Your task to perform on an android device: remove spam from my inbox in the gmail app Image 0: 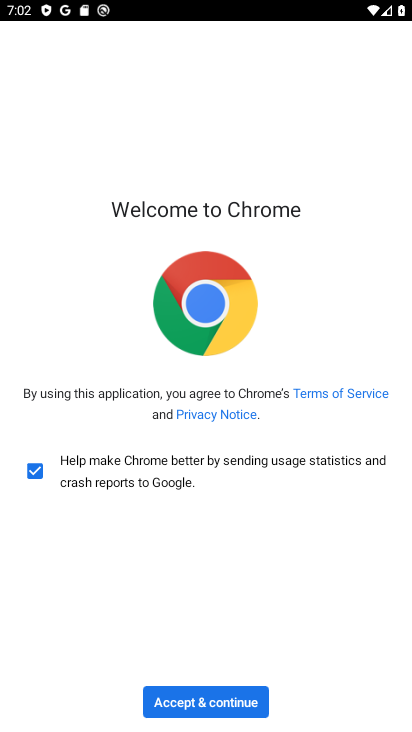
Step 0: press home button
Your task to perform on an android device: remove spam from my inbox in the gmail app Image 1: 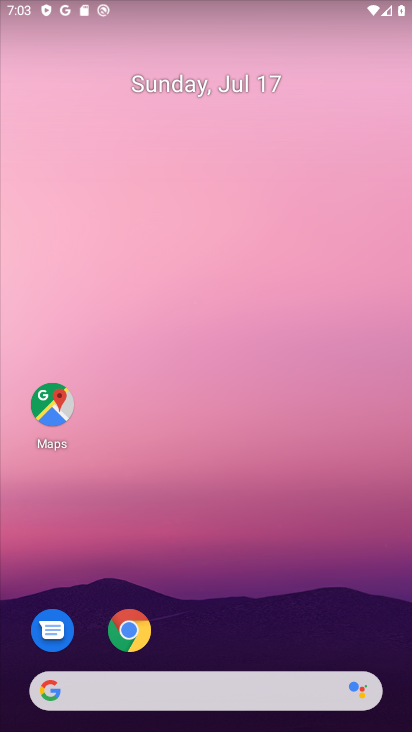
Step 1: drag from (222, 247) to (262, 26)
Your task to perform on an android device: remove spam from my inbox in the gmail app Image 2: 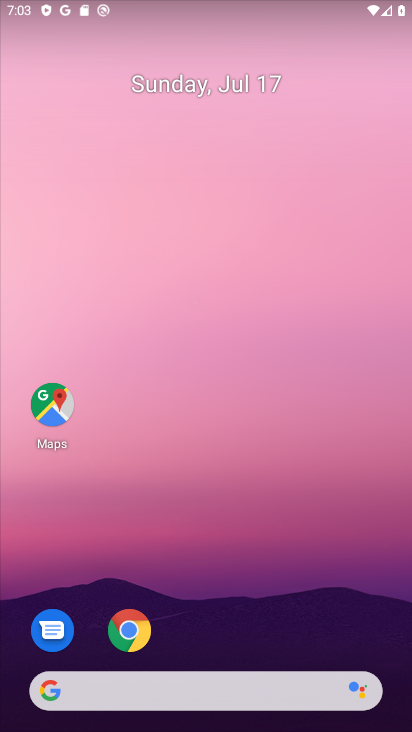
Step 2: drag from (201, 620) to (265, 44)
Your task to perform on an android device: remove spam from my inbox in the gmail app Image 3: 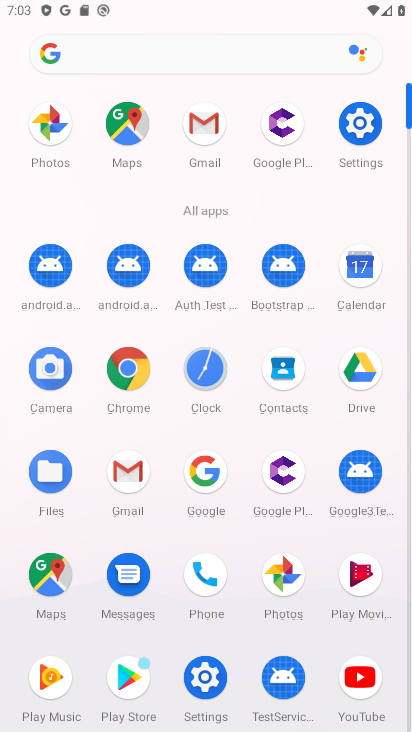
Step 3: click (202, 154)
Your task to perform on an android device: remove spam from my inbox in the gmail app Image 4: 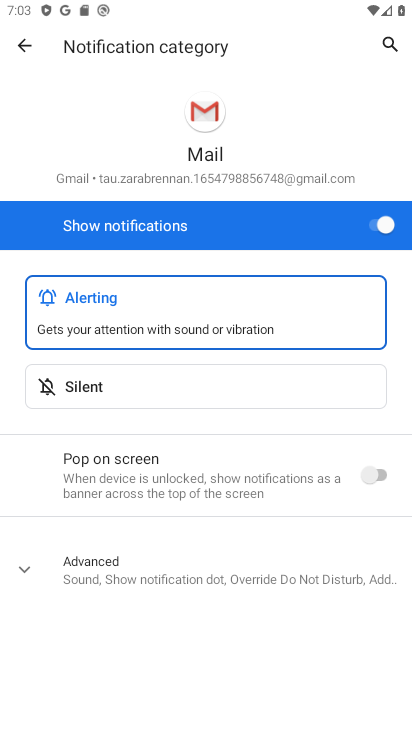
Step 4: click (22, 43)
Your task to perform on an android device: remove spam from my inbox in the gmail app Image 5: 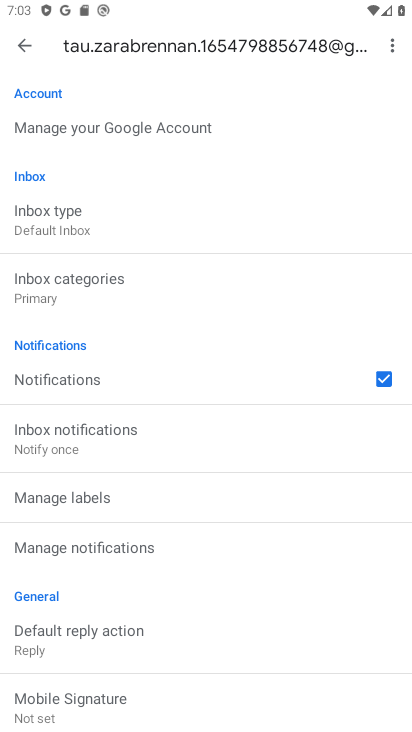
Step 5: click (22, 43)
Your task to perform on an android device: remove spam from my inbox in the gmail app Image 6: 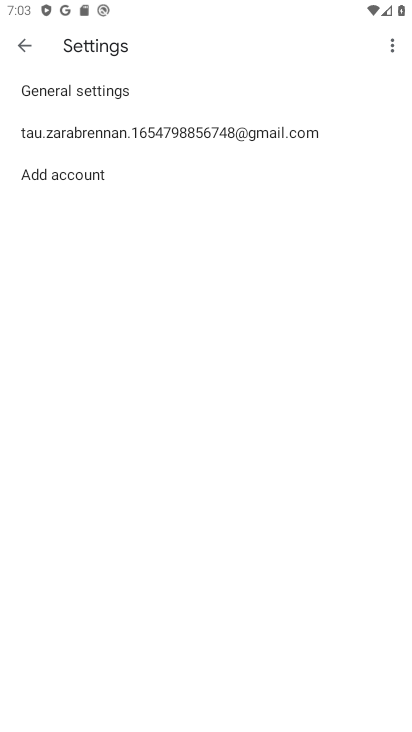
Step 6: click (22, 43)
Your task to perform on an android device: remove spam from my inbox in the gmail app Image 7: 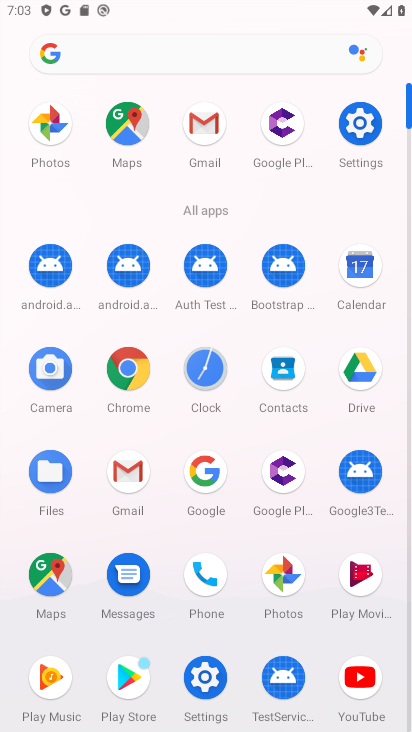
Step 7: click (212, 127)
Your task to perform on an android device: remove spam from my inbox in the gmail app Image 8: 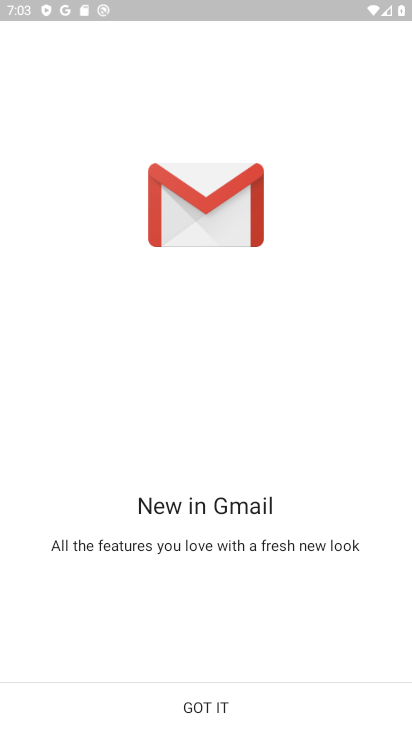
Step 8: click (211, 705)
Your task to perform on an android device: remove spam from my inbox in the gmail app Image 9: 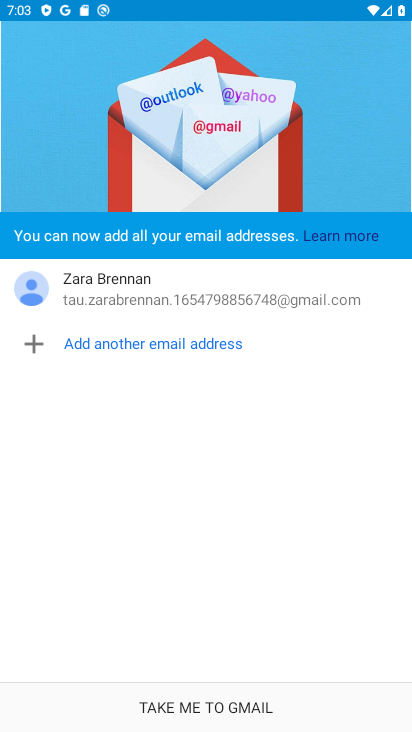
Step 9: click (211, 705)
Your task to perform on an android device: remove spam from my inbox in the gmail app Image 10: 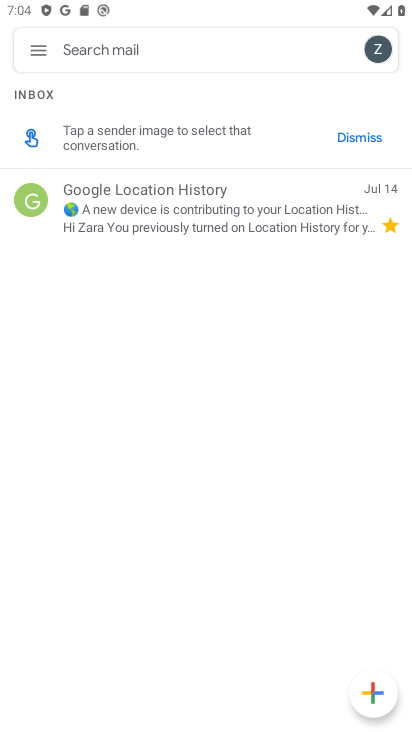
Step 10: click (36, 53)
Your task to perform on an android device: remove spam from my inbox in the gmail app Image 11: 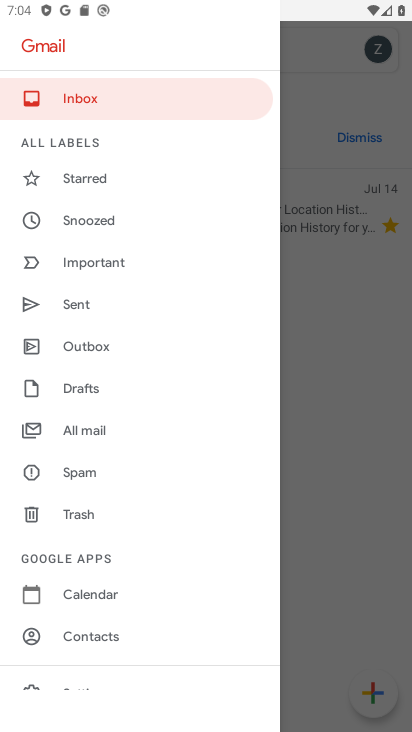
Step 11: click (91, 473)
Your task to perform on an android device: remove spam from my inbox in the gmail app Image 12: 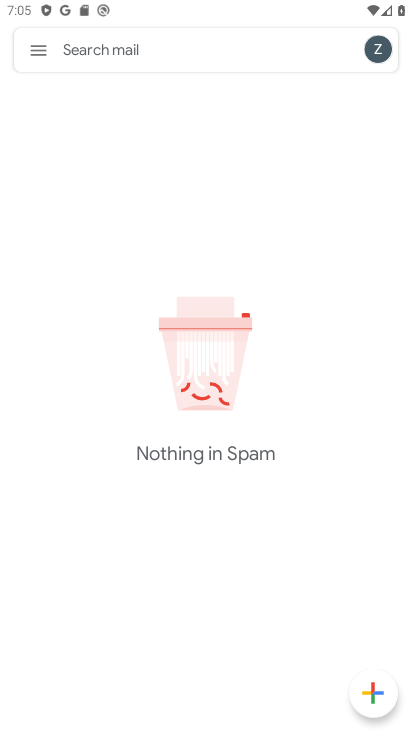
Step 12: task complete